Your task to perform on an android device: turn on javascript in the chrome app Image 0: 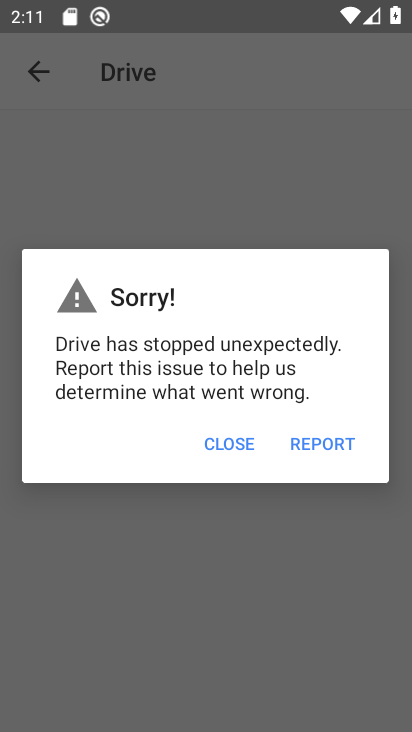
Step 0: click (213, 582)
Your task to perform on an android device: turn on javascript in the chrome app Image 1: 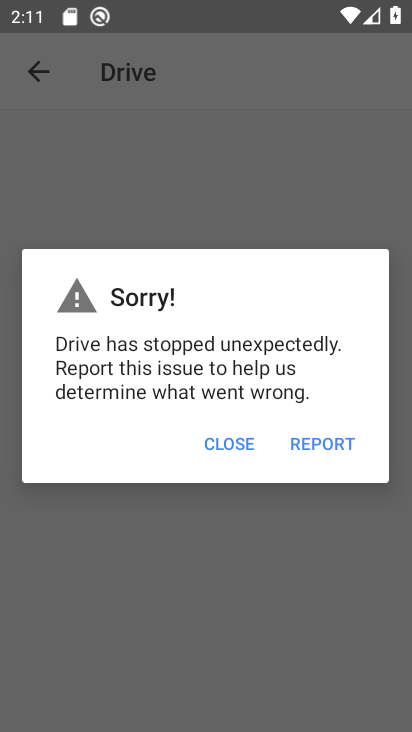
Step 1: press home button
Your task to perform on an android device: turn on javascript in the chrome app Image 2: 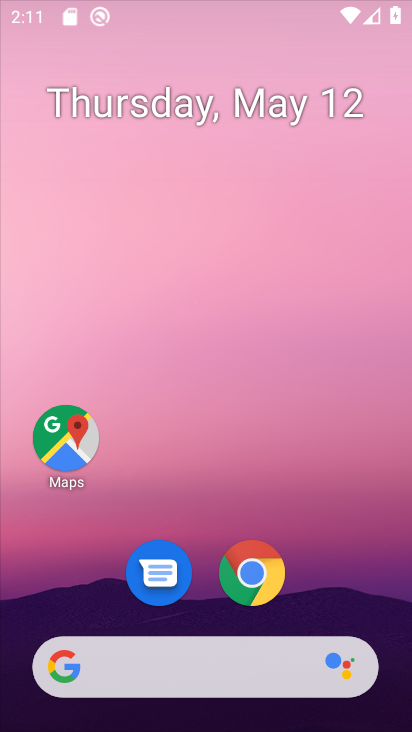
Step 2: drag from (181, 584) to (256, 239)
Your task to perform on an android device: turn on javascript in the chrome app Image 3: 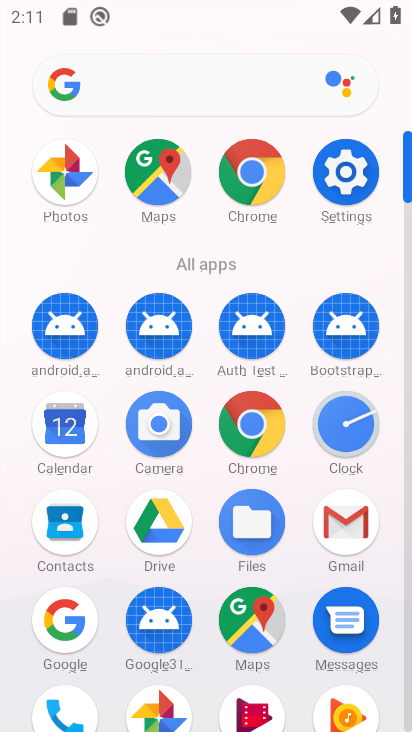
Step 3: click (246, 171)
Your task to perform on an android device: turn on javascript in the chrome app Image 4: 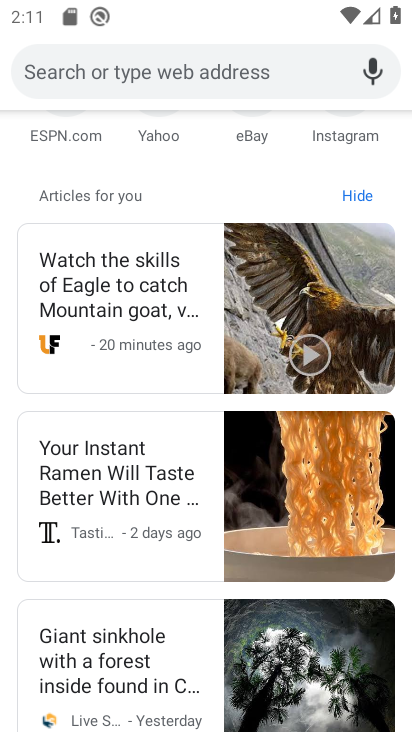
Step 4: drag from (130, 603) to (300, 729)
Your task to perform on an android device: turn on javascript in the chrome app Image 5: 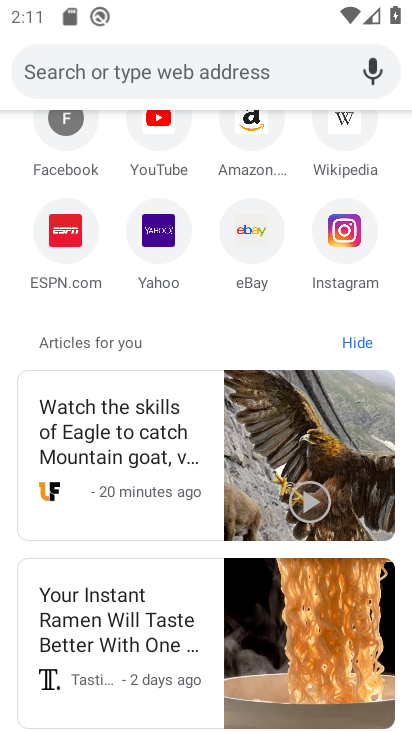
Step 5: drag from (284, 139) to (358, 545)
Your task to perform on an android device: turn on javascript in the chrome app Image 6: 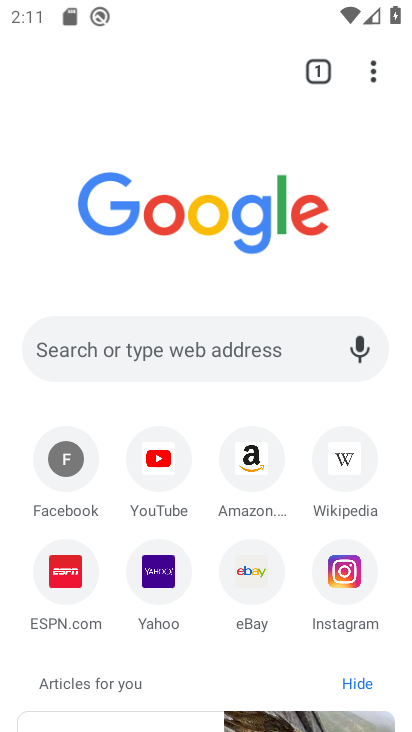
Step 6: click (373, 66)
Your task to perform on an android device: turn on javascript in the chrome app Image 7: 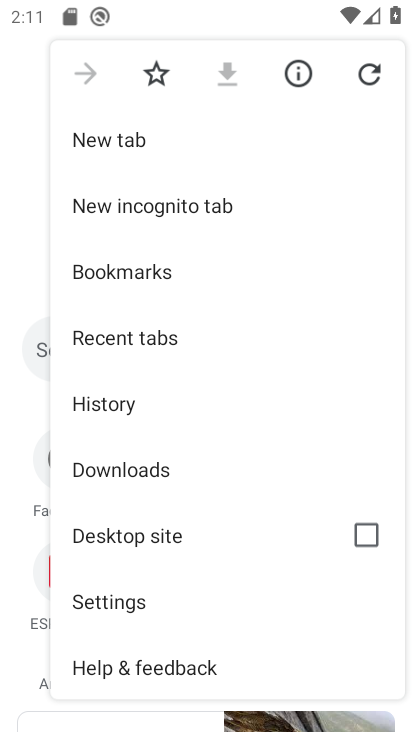
Step 7: click (156, 592)
Your task to perform on an android device: turn on javascript in the chrome app Image 8: 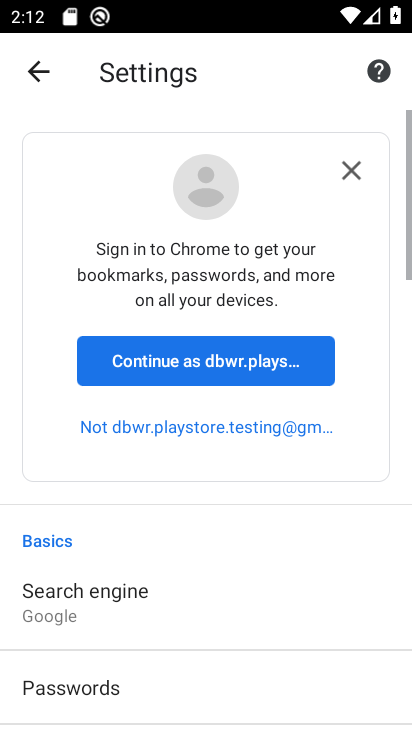
Step 8: drag from (154, 590) to (258, 142)
Your task to perform on an android device: turn on javascript in the chrome app Image 9: 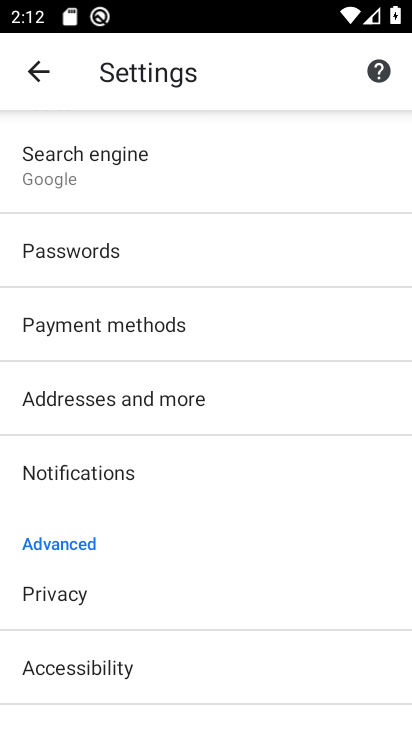
Step 9: drag from (190, 627) to (290, 180)
Your task to perform on an android device: turn on javascript in the chrome app Image 10: 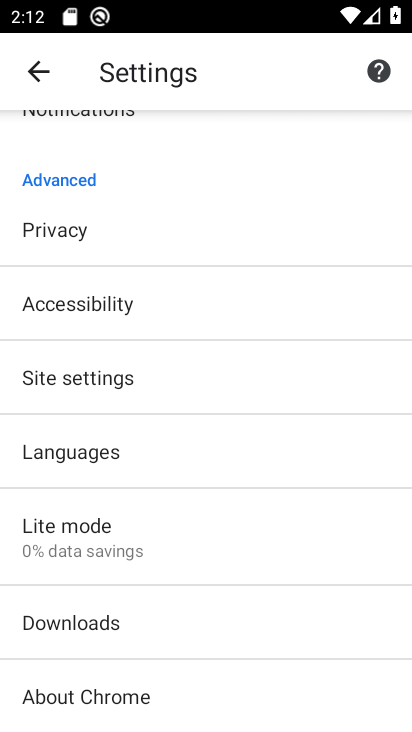
Step 10: click (93, 381)
Your task to perform on an android device: turn on javascript in the chrome app Image 11: 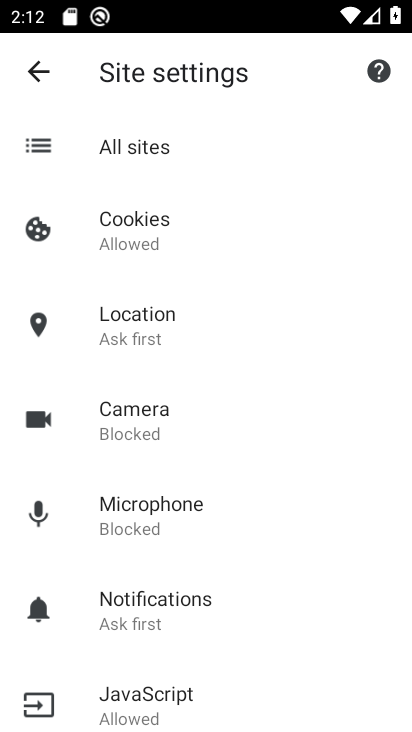
Step 11: click (151, 676)
Your task to perform on an android device: turn on javascript in the chrome app Image 12: 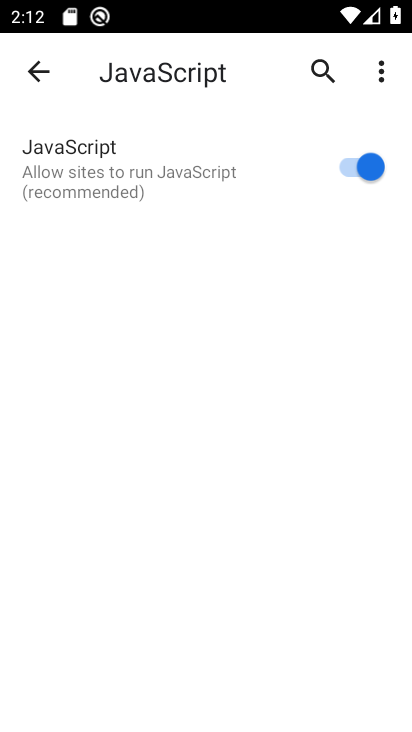
Step 12: task complete